Your task to perform on an android device: turn on priority inbox in the gmail app Image 0: 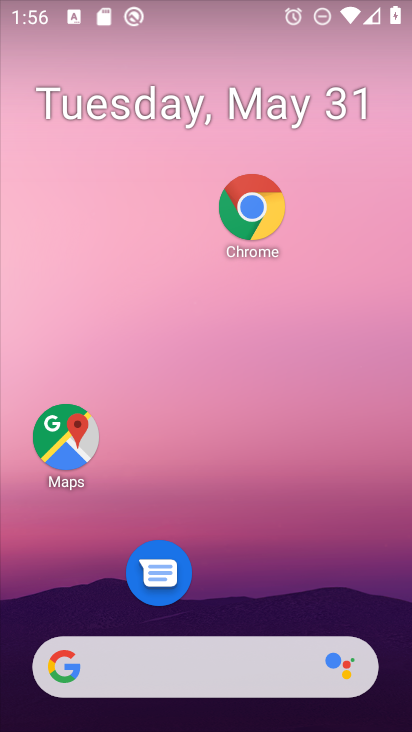
Step 0: drag from (228, 649) to (235, 125)
Your task to perform on an android device: turn on priority inbox in the gmail app Image 1: 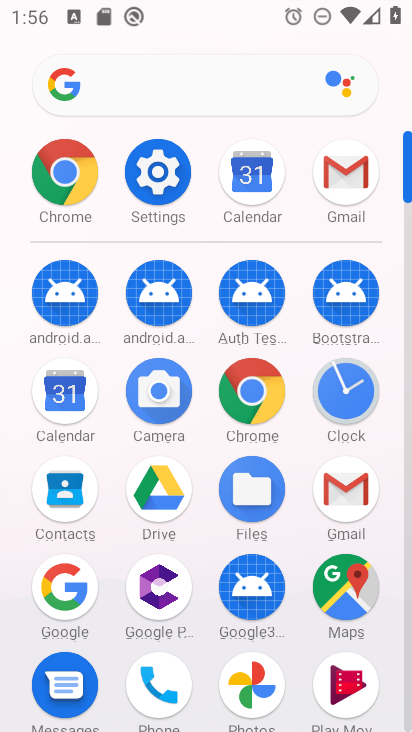
Step 1: click (352, 508)
Your task to perform on an android device: turn on priority inbox in the gmail app Image 2: 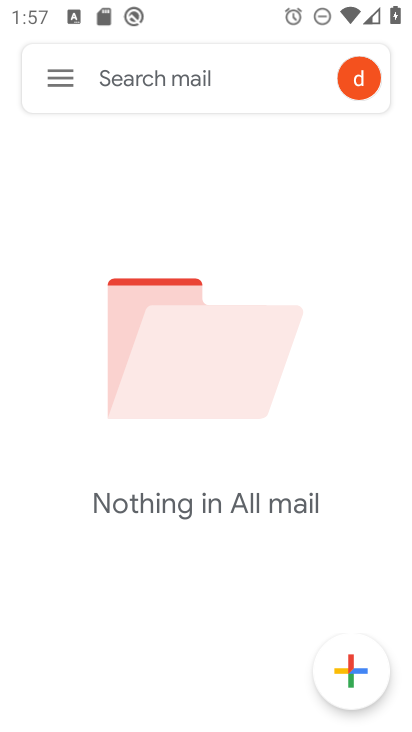
Step 2: click (60, 77)
Your task to perform on an android device: turn on priority inbox in the gmail app Image 3: 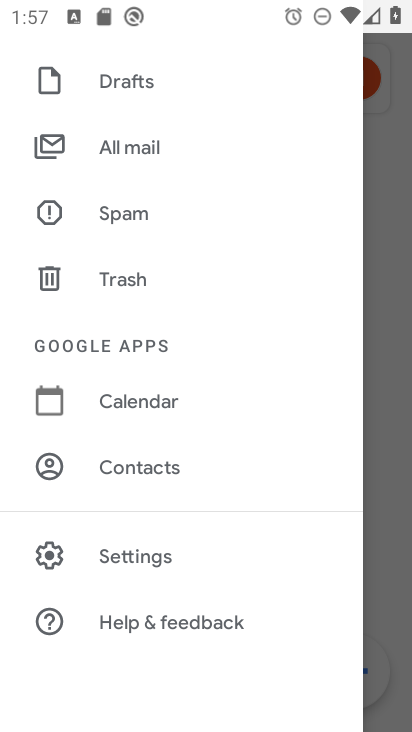
Step 3: click (139, 560)
Your task to perform on an android device: turn on priority inbox in the gmail app Image 4: 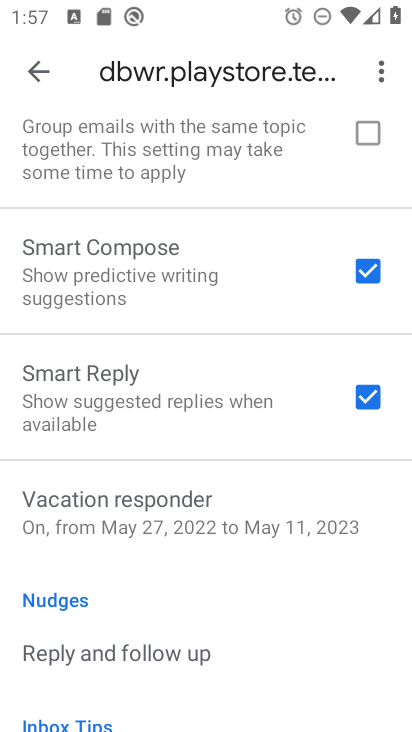
Step 4: drag from (156, 268) to (153, 608)
Your task to perform on an android device: turn on priority inbox in the gmail app Image 5: 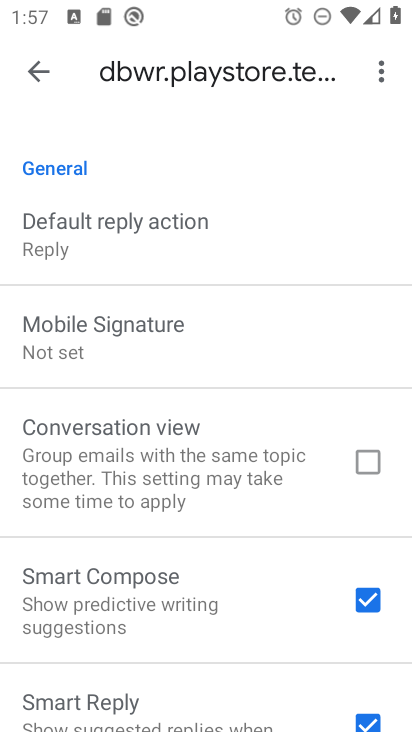
Step 5: drag from (132, 303) to (124, 641)
Your task to perform on an android device: turn on priority inbox in the gmail app Image 6: 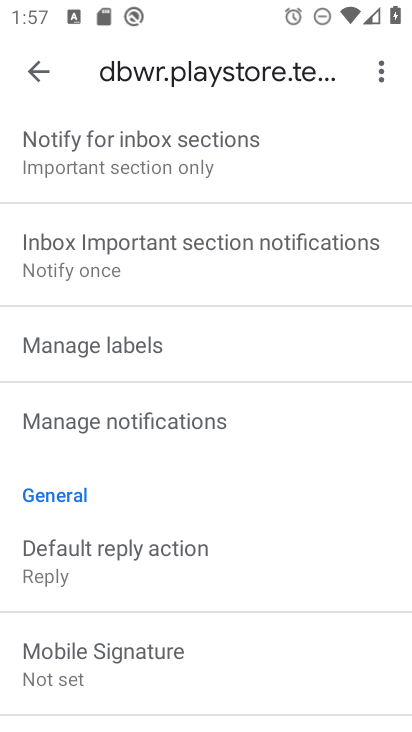
Step 6: drag from (121, 299) to (125, 592)
Your task to perform on an android device: turn on priority inbox in the gmail app Image 7: 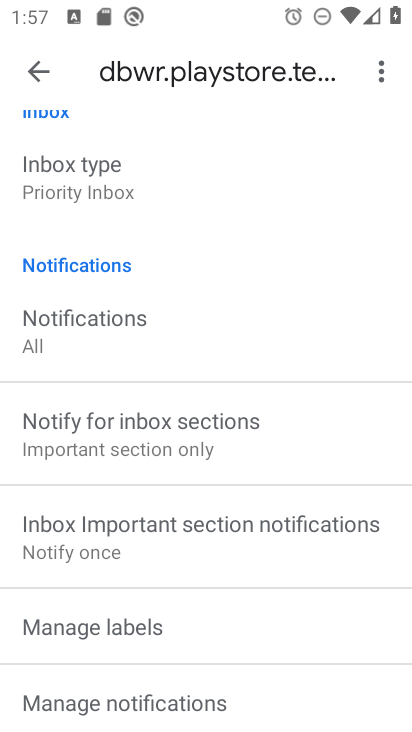
Step 7: drag from (119, 267) to (118, 726)
Your task to perform on an android device: turn on priority inbox in the gmail app Image 8: 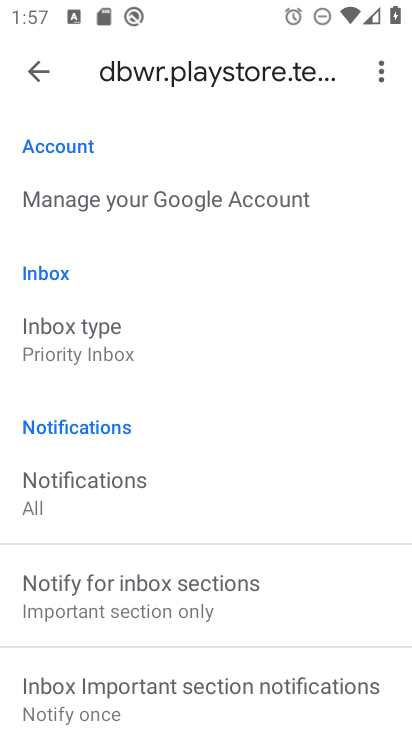
Step 8: drag from (150, 357) to (125, 667)
Your task to perform on an android device: turn on priority inbox in the gmail app Image 9: 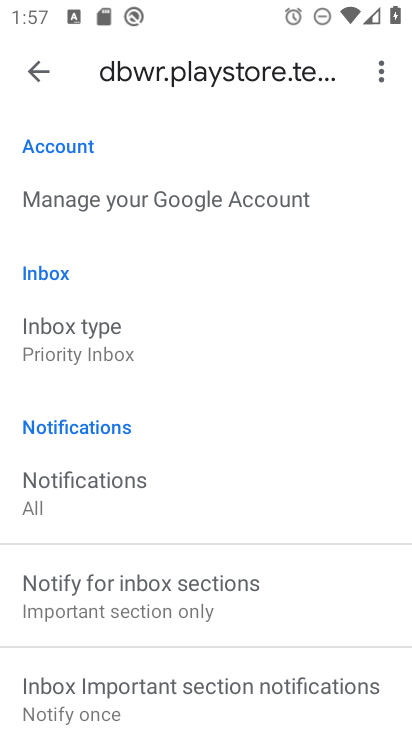
Step 9: click (94, 358)
Your task to perform on an android device: turn on priority inbox in the gmail app Image 10: 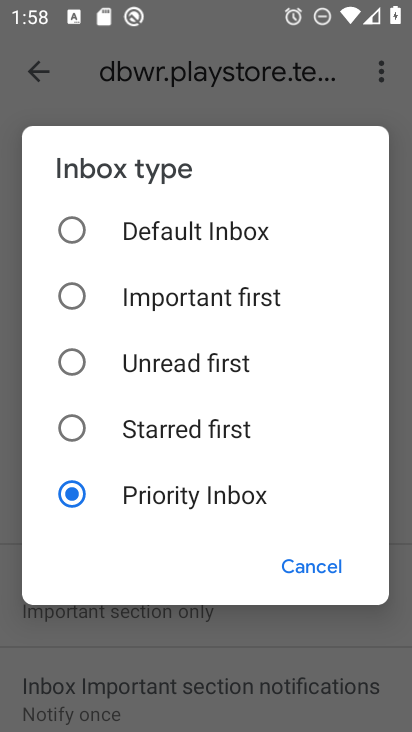
Step 10: task complete